Your task to perform on an android device: Open Amazon Image 0: 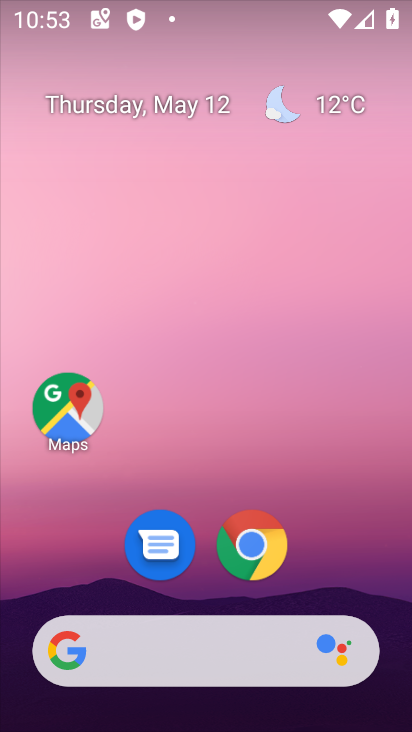
Step 0: click (247, 538)
Your task to perform on an android device: Open Amazon Image 1: 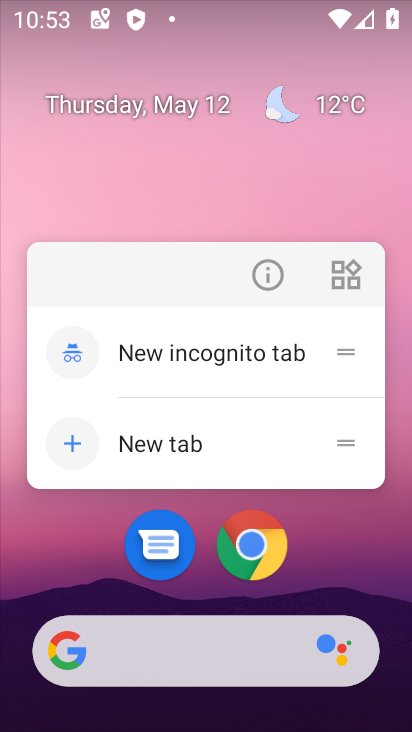
Step 1: click (247, 542)
Your task to perform on an android device: Open Amazon Image 2: 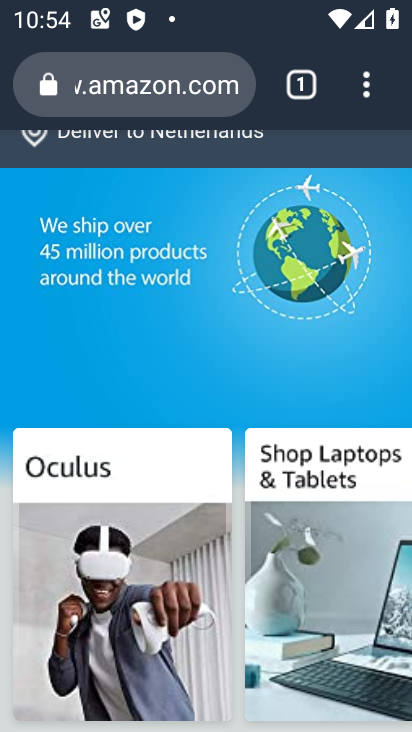
Step 2: task complete